Your task to perform on an android device: What is the news today? Image 0: 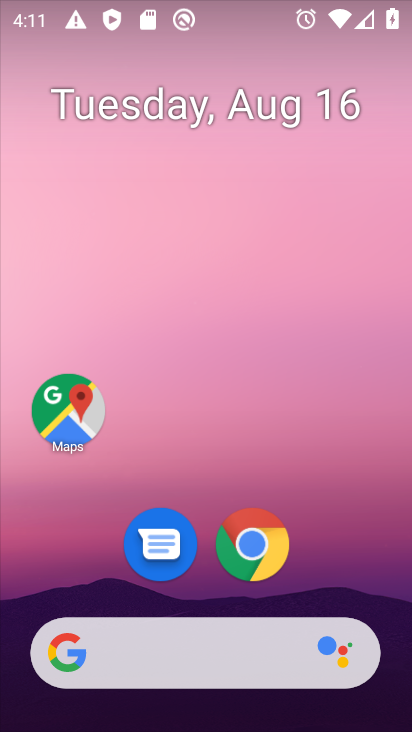
Step 0: drag from (195, 479) to (195, 119)
Your task to perform on an android device: What is the news today? Image 1: 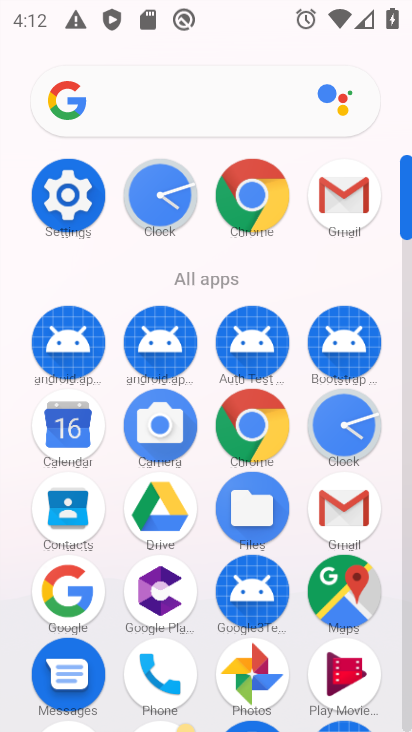
Step 1: click (61, 588)
Your task to perform on an android device: What is the news today? Image 2: 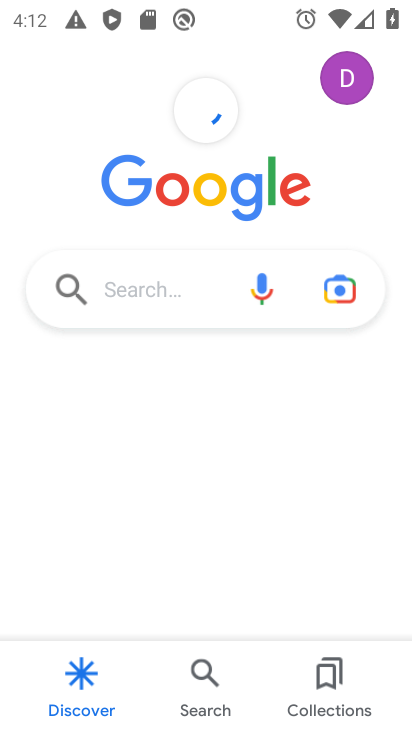
Step 2: click (170, 288)
Your task to perform on an android device: What is the news today? Image 3: 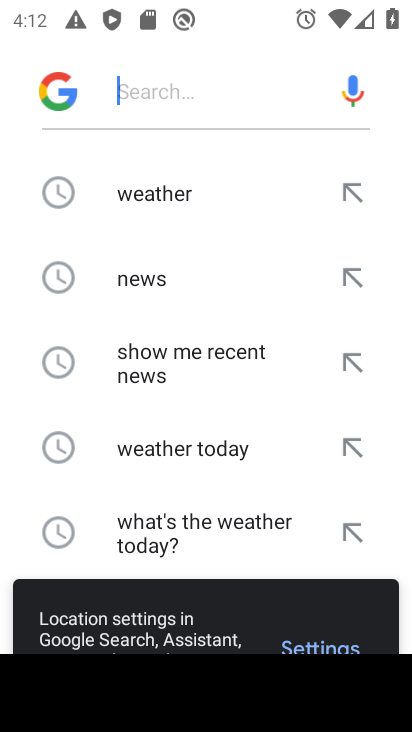
Step 3: click (166, 287)
Your task to perform on an android device: What is the news today? Image 4: 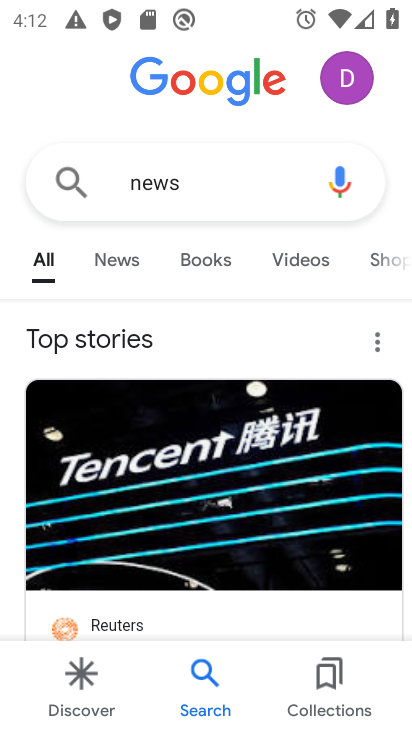
Step 4: click (108, 268)
Your task to perform on an android device: What is the news today? Image 5: 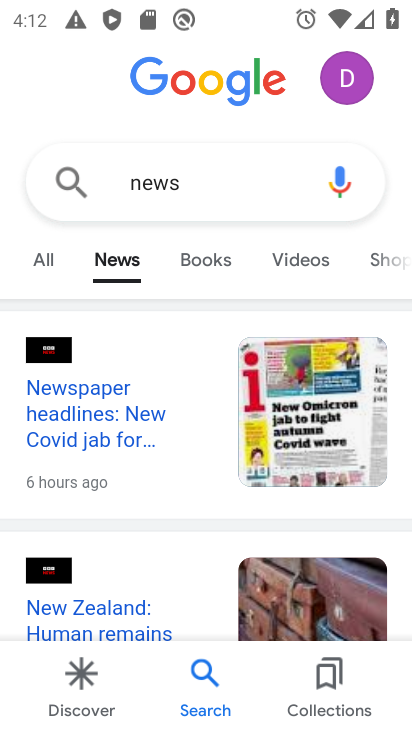
Step 5: task complete